Your task to perform on an android device: show emergency info Image 0: 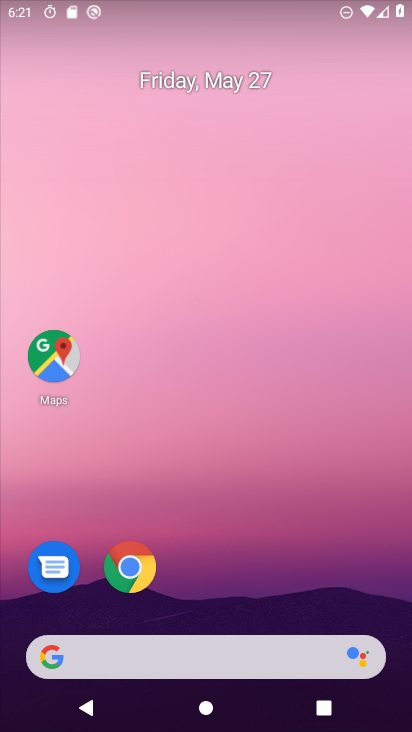
Step 0: drag from (185, 602) to (189, 11)
Your task to perform on an android device: show emergency info Image 1: 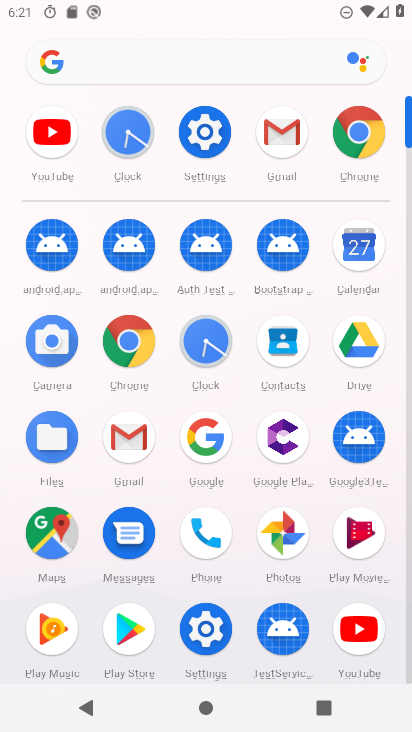
Step 1: click (204, 642)
Your task to perform on an android device: show emergency info Image 2: 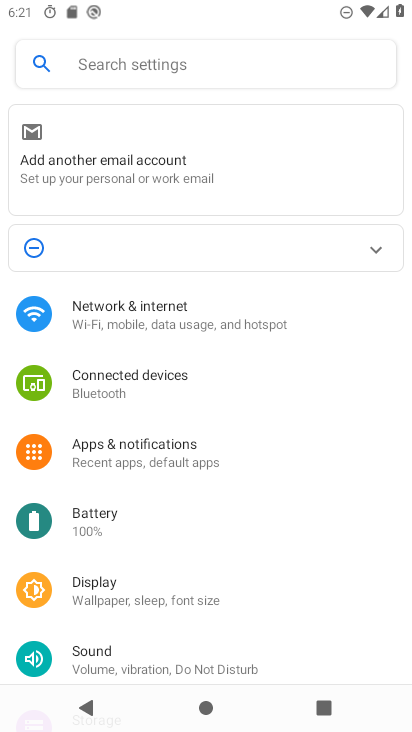
Step 2: drag from (115, 671) to (186, 141)
Your task to perform on an android device: show emergency info Image 3: 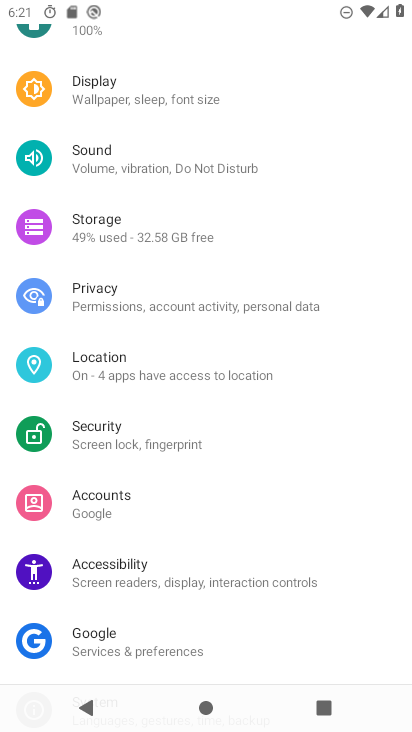
Step 3: drag from (121, 636) to (169, 206)
Your task to perform on an android device: show emergency info Image 4: 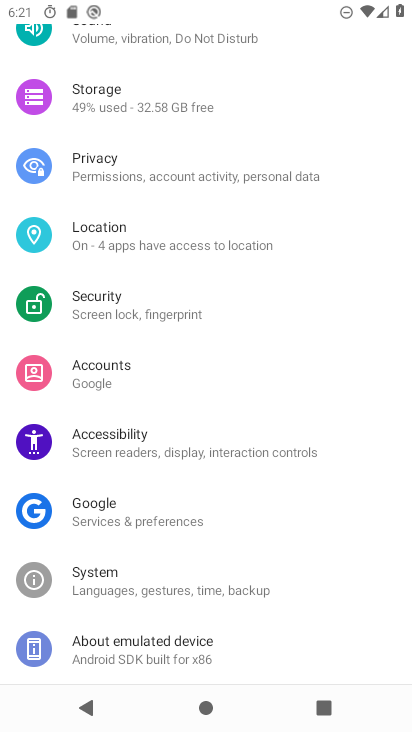
Step 4: click (147, 669)
Your task to perform on an android device: show emergency info Image 5: 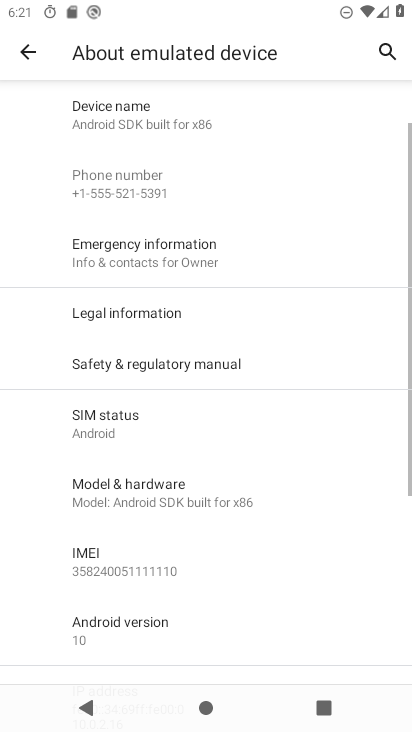
Step 5: click (136, 262)
Your task to perform on an android device: show emergency info Image 6: 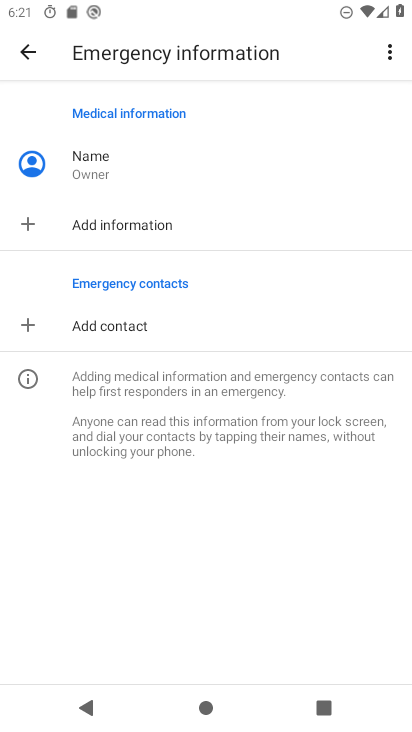
Step 6: task complete